Your task to perform on an android device: Turn off the flashlight Image 0: 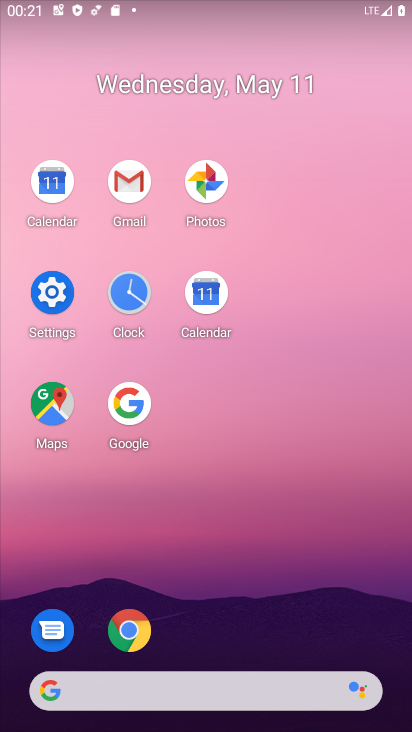
Step 0: drag from (292, 1) to (288, 510)
Your task to perform on an android device: Turn off the flashlight Image 1: 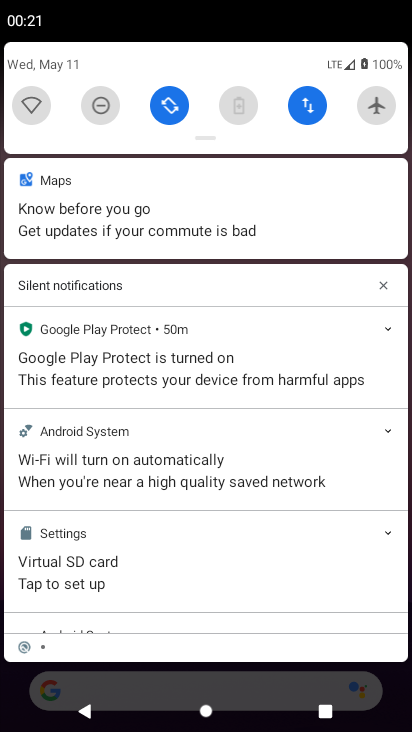
Step 1: task complete